Your task to perform on an android device: Search for flights from NYC to Tokyo Image 0: 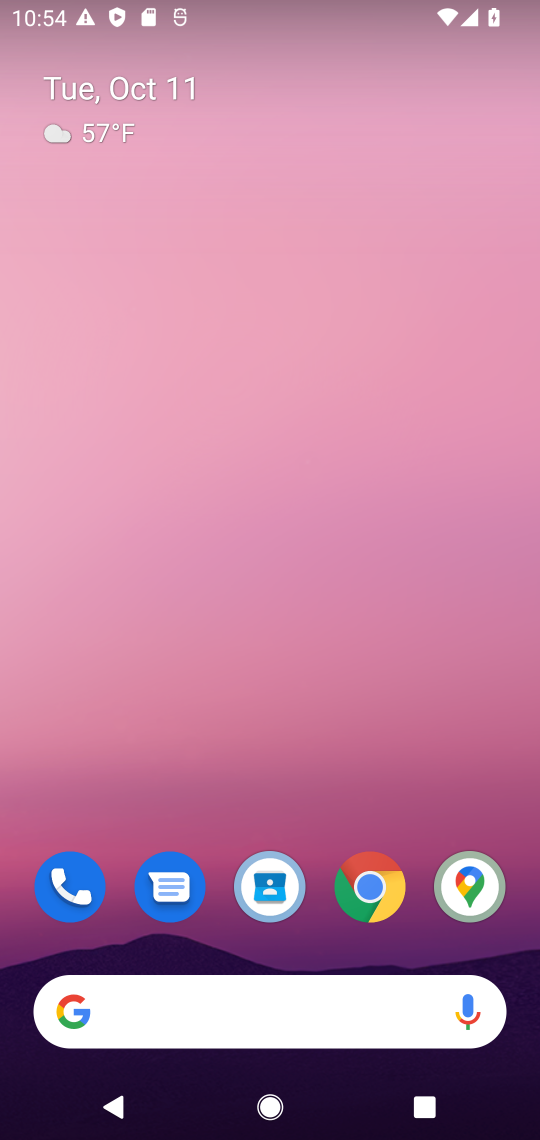
Step 0: press home button
Your task to perform on an android device: Search for flights from NYC to Tokyo Image 1: 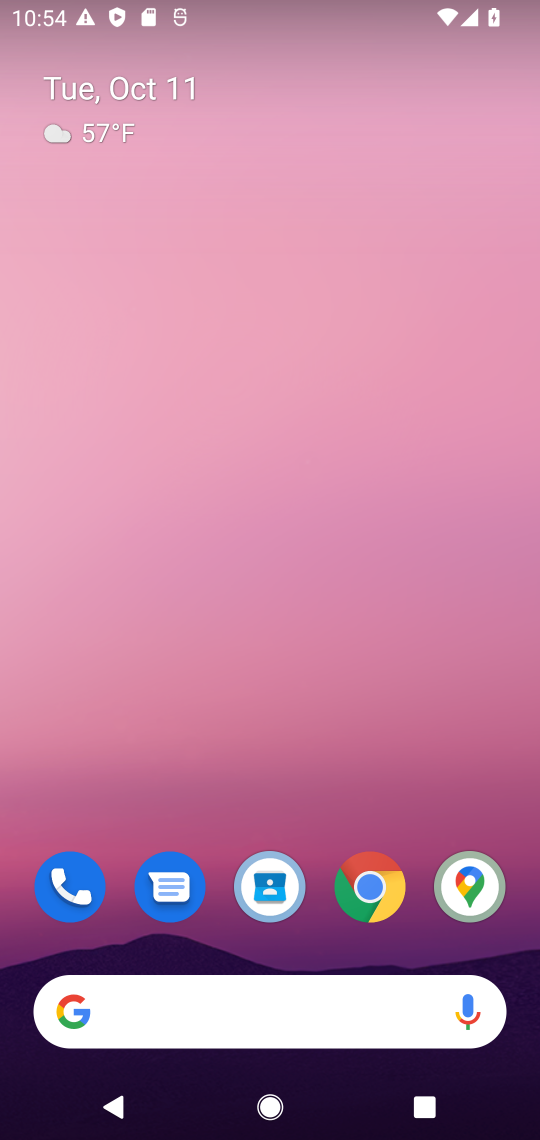
Step 1: click (208, 1004)
Your task to perform on an android device: Search for flights from NYC to Tokyo Image 2: 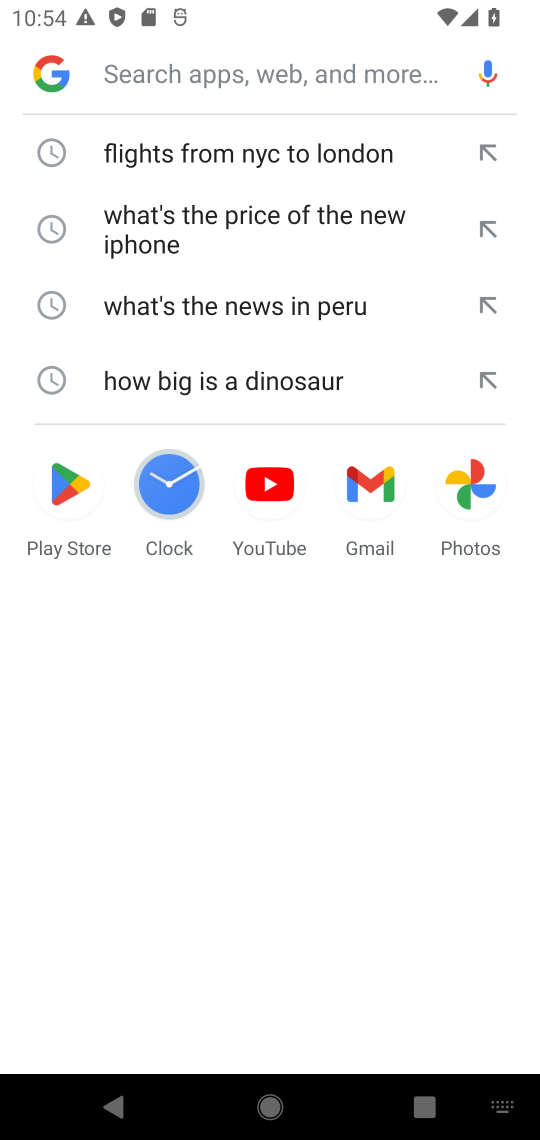
Step 2: type "flights from NYC to Tokyo"
Your task to perform on an android device: Search for flights from NYC to Tokyo Image 3: 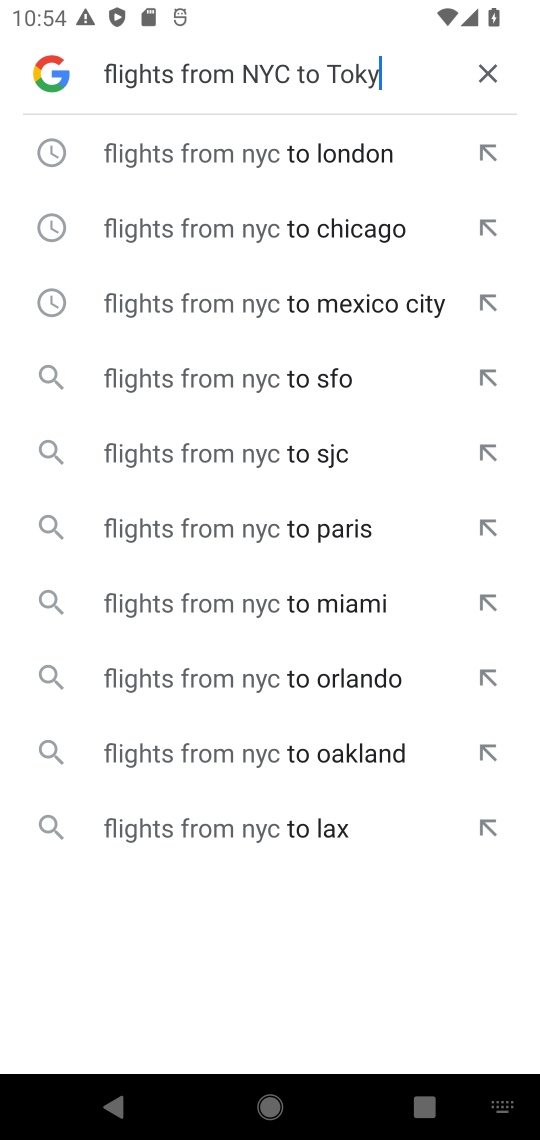
Step 3: press enter
Your task to perform on an android device: Search for flights from NYC to Tokyo Image 4: 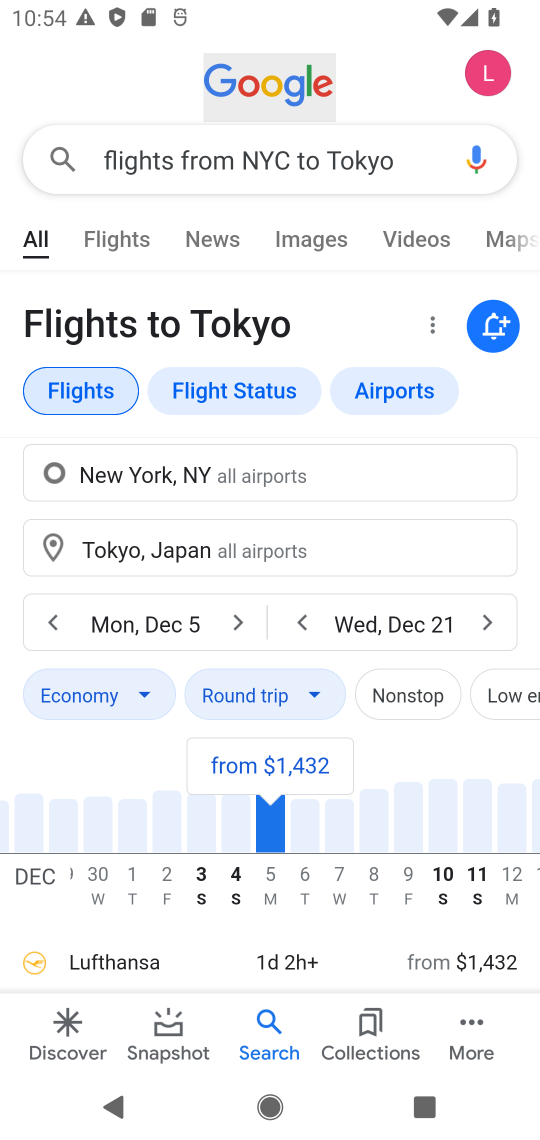
Step 4: drag from (457, 772) to (457, 606)
Your task to perform on an android device: Search for flights from NYC to Tokyo Image 5: 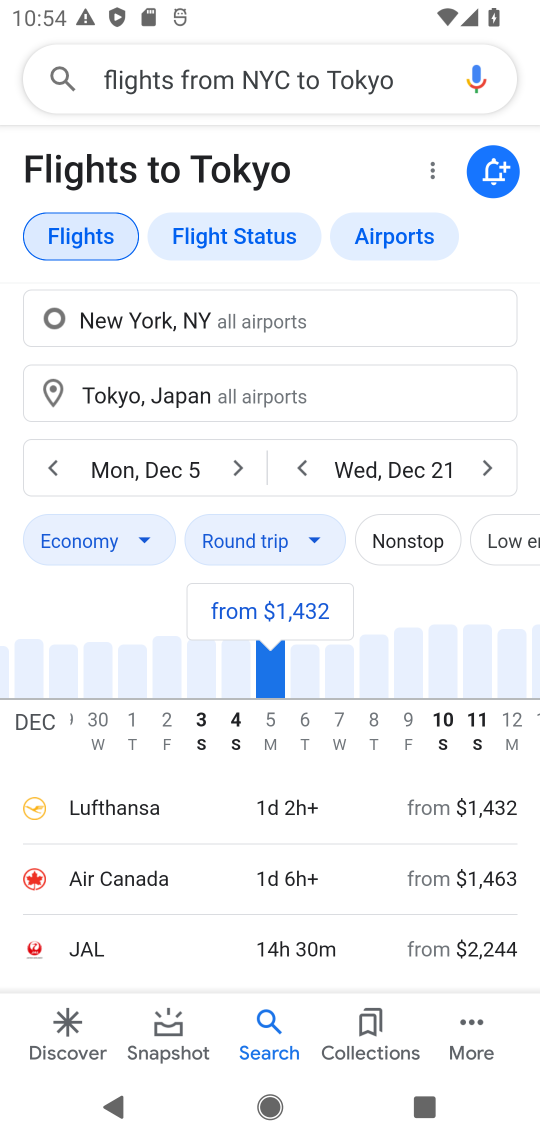
Step 5: drag from (364, 830) to (378, 594)
Your task to perform on an android device: Search for flights from NYC to Tokyo Image 6: 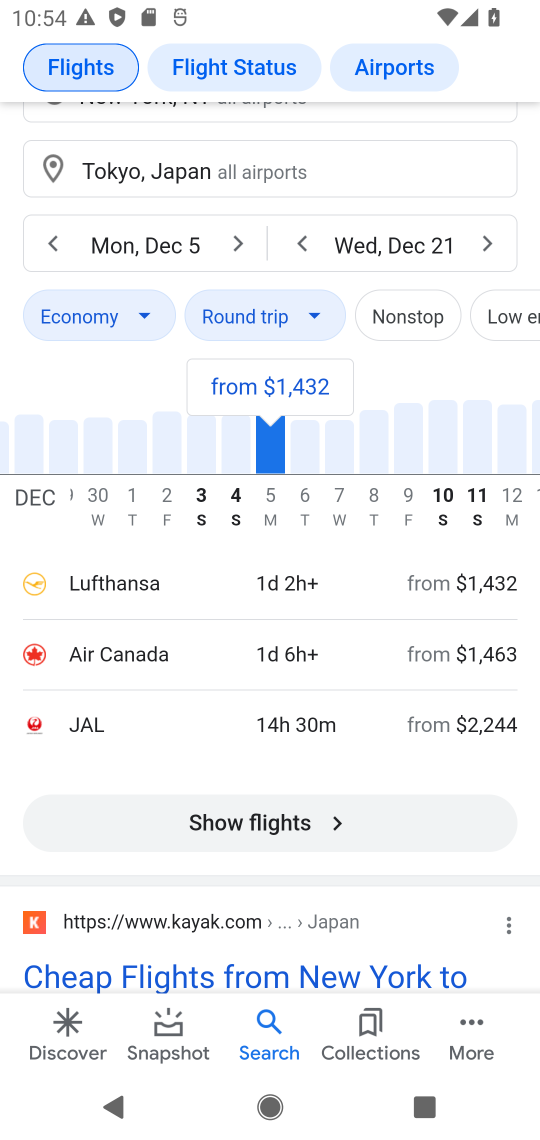
Step 6: click (258, 818)
Your task to perform on an android device: Search for flights from NYC to Tokyo Image 7: 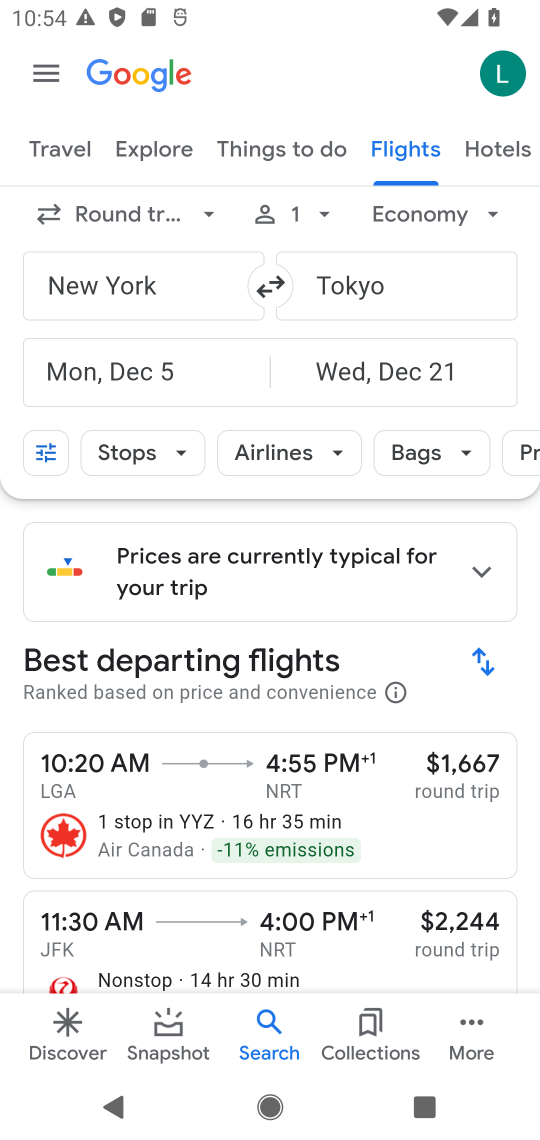
Step 7: task complete